Your task to perform on an android device: What does the iPhone 8 look like? Image 0: 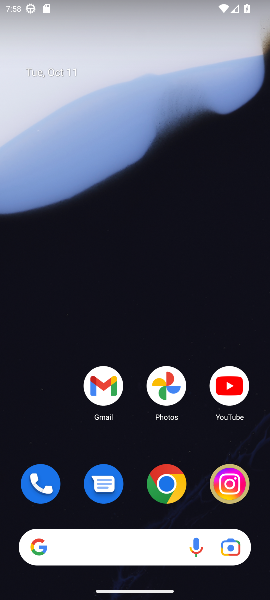
Step 0: click (169, 483)
Your task to perform on an android device: What does the iPhone 8 look like? Image 1: 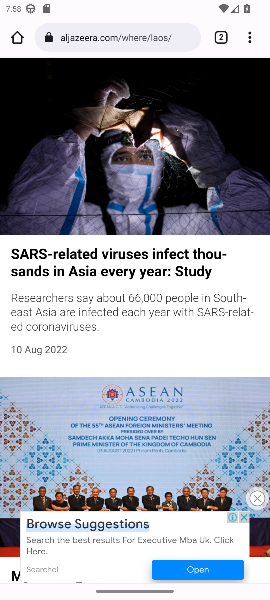
Step 1: click (117, 38)
Your task to perform on an android device: What does the iPhone 8 look like? Image 2: 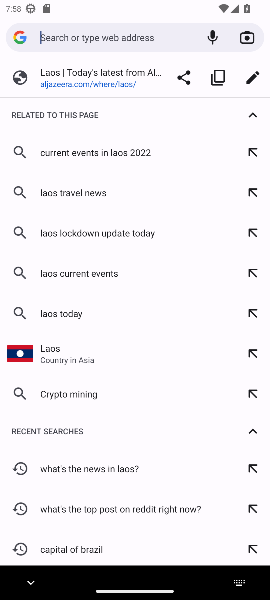
Step 2: type "What does the iPhone 8 look like?"
Your task to perform on an android device: What does the iPhone 8 look like? Image 3: 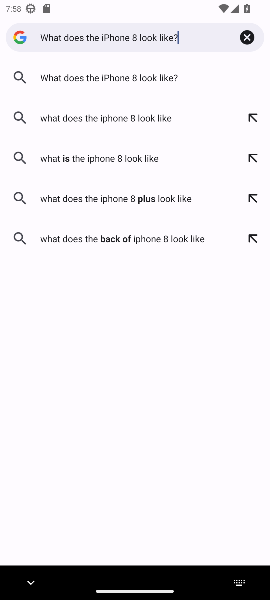
Step 3: click (106, 79)
Your task to perform on an android device: What does the iPhone 8 look like? Image 4: 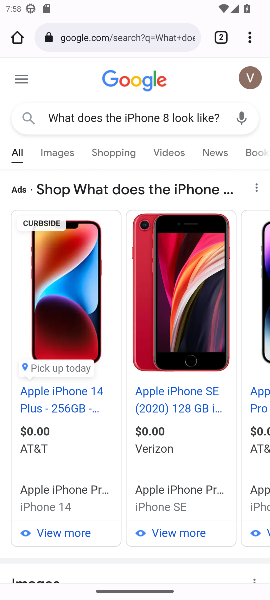
Step 4: task complete